Your task to perform on an android device: When is my next meeting? Image 0: 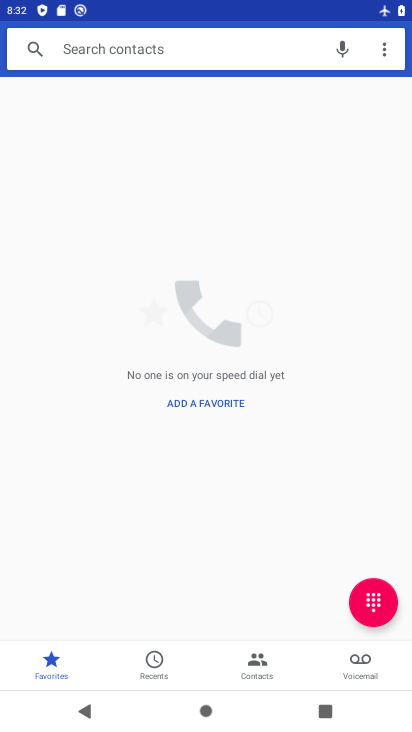
Step 0: press home button
Your task to perform on an android device: When is my next meeting? Image 1: 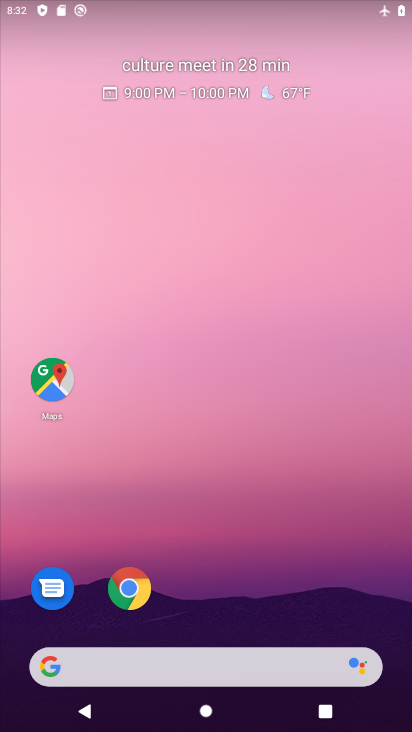
Step 1: drag from (271, 574) to (313, 30)
Your task to perform on an android device: When is my next meeting? Image 2: 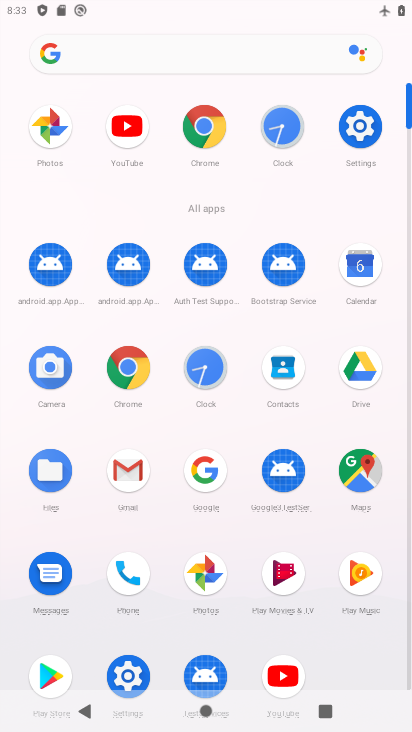
Step 2: click (363, 277)
Your task to perform on an android device: When is my next meeting? Image 3: 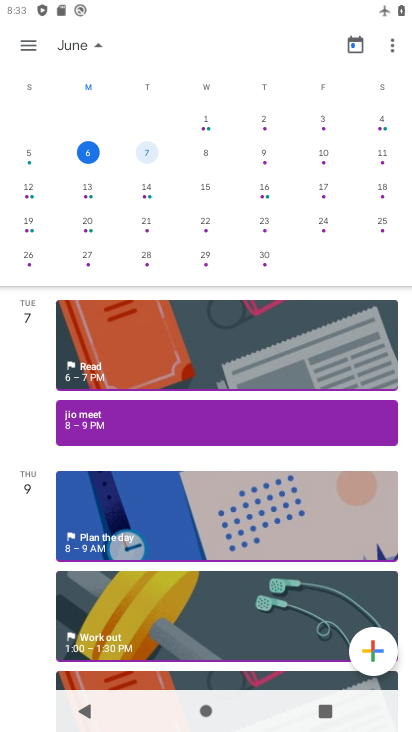
Step 3: click (137, 148)
Your task to perform on an android device: When is my next meeting? Image 4: 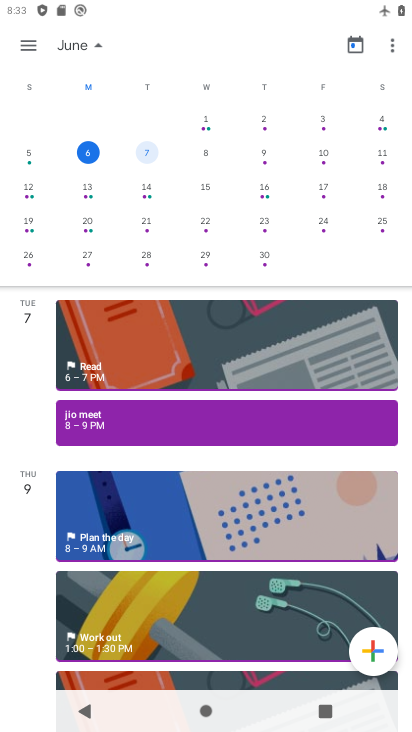
Step 4: task complete